Your task to perform on an android device: turn vacation reply on in the gmail app Image 0: 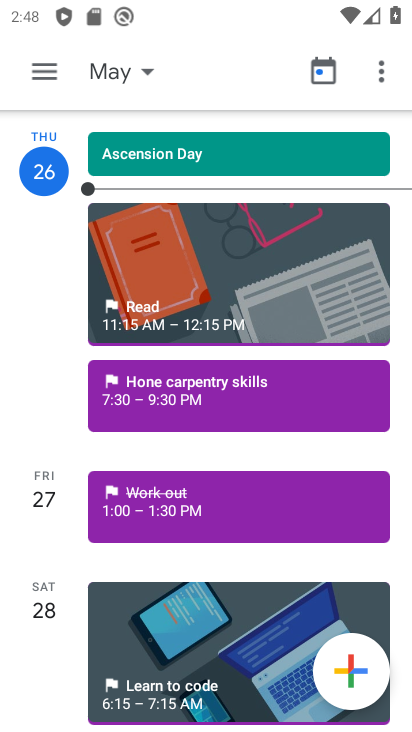
Step 0: press home button
Your task to perform on an android device: turn vacation reply on in the gmail app Image 1: 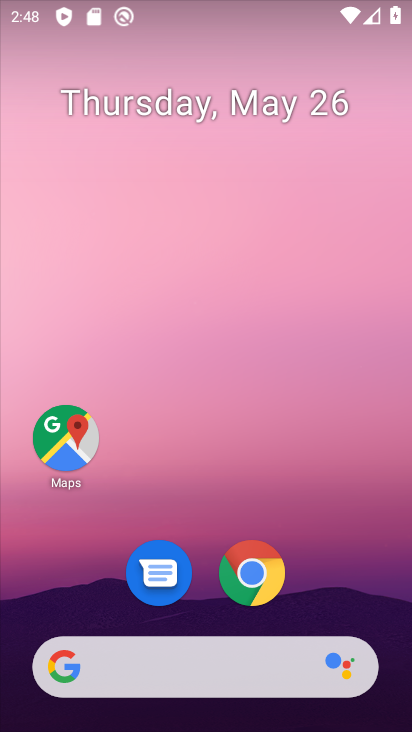
Step 1: drag from (228, 684) to (226, 162)
Your task to perform on an android device: turn vacation reply on in the gmail app Image 2: 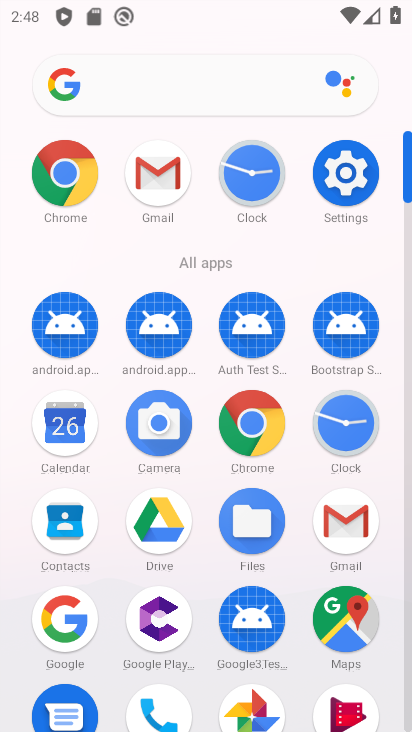
Step 2: click (155, 194)
Your task to perform on an android device: turn vacation reply on in the gmail app Image 3: 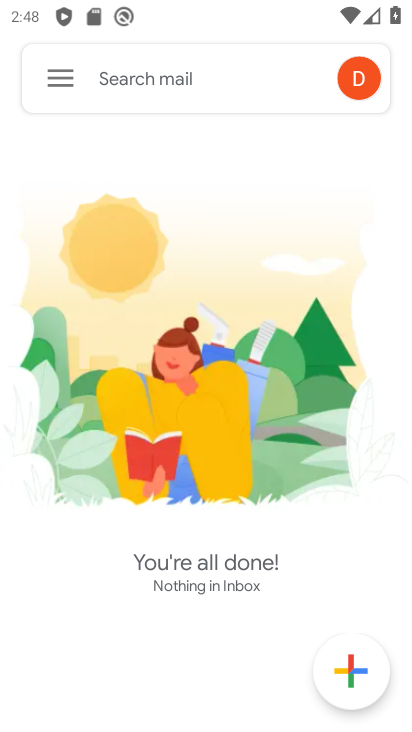
Step 3: click (56, 88)
Your task to perform on an android device: turn vacation reply on in the gmail app Image 4: 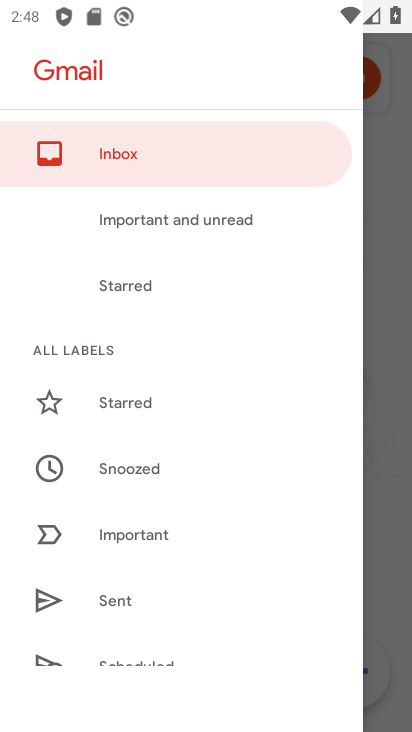
Step 4: drag from (192, 261) to (226, 50)
Your task to perform on an android device: turn vacation reply on in the gmail app Image 5: 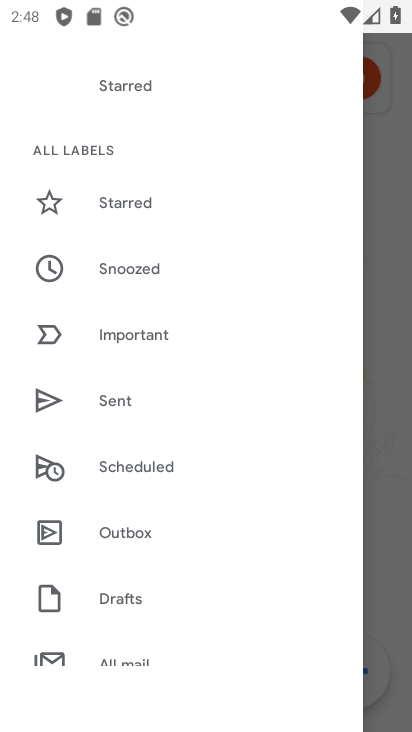
Step 5: drag from (175, 584) to (252, 123)
Your task to perform on an android device: turn vacation reply on in the gmail app Image 6: 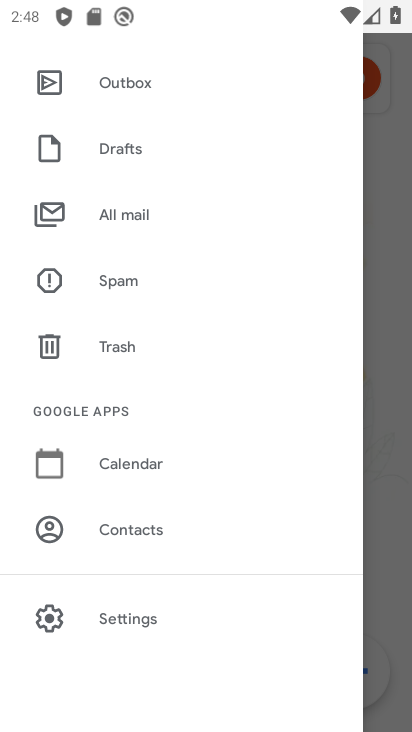
Step 6: click (141, 620)
Your task to perform on an android device: turn vacation reply on in the gmail app Image 7: 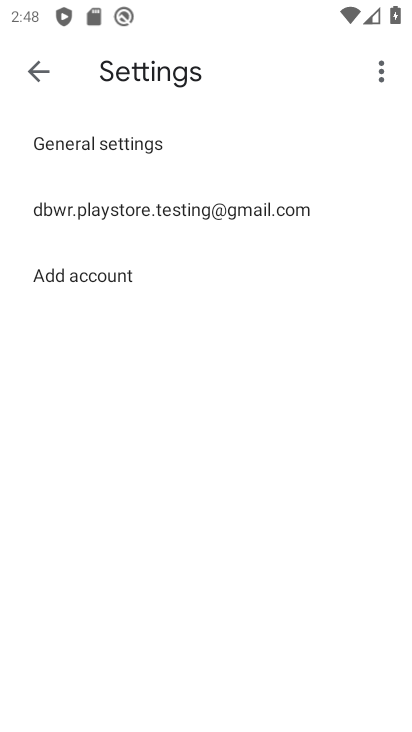
Step 7: click (162, 201)
Your task to perform on an android device: turn vacation reply on in the gmail app Image 8: 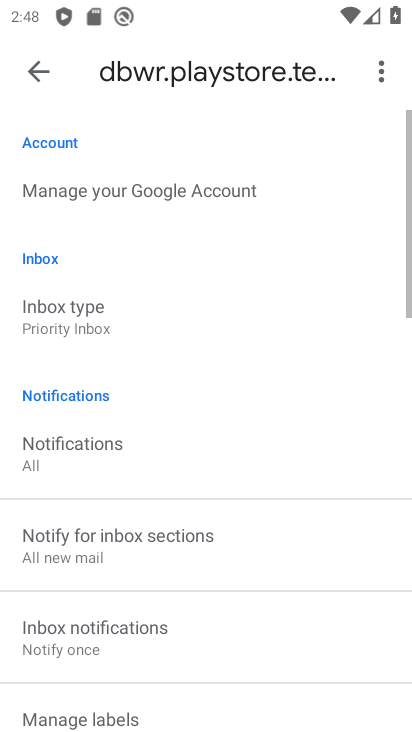
Step 8: drag from (187, 518) to (288, 74)
Your task to perform on an android device: turn vacation reply on in the gmail app Image 9: 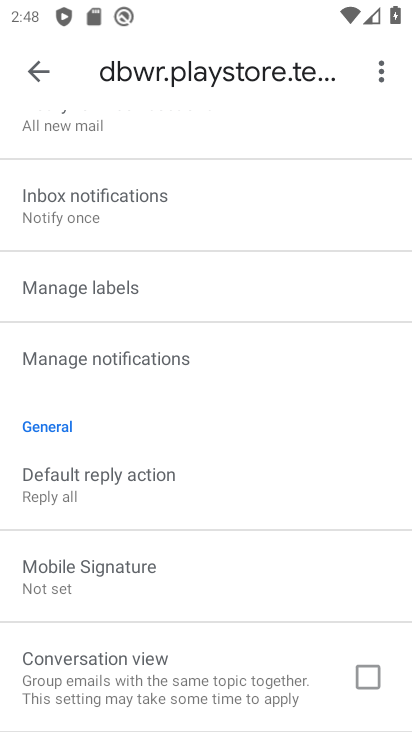
Step 9: drag from (191, 588) to (264, 42)
Your task to perform on an android device: turn vacation reply on in the gmail app Image 10: 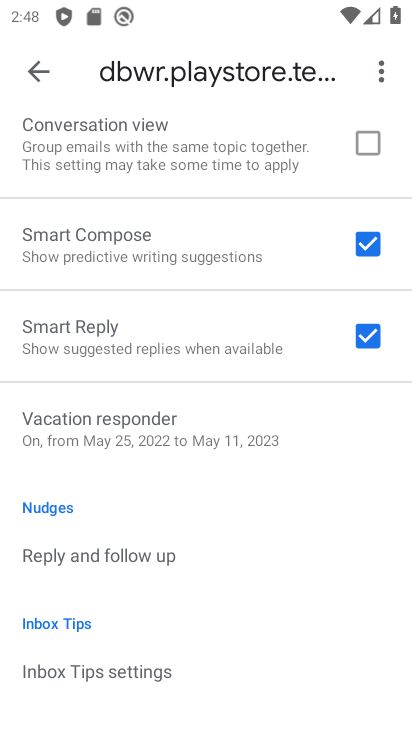
Step 10: click (206, 452)
Your task to perform on an android device: turn vacation reply on in the gmail app Image 11: 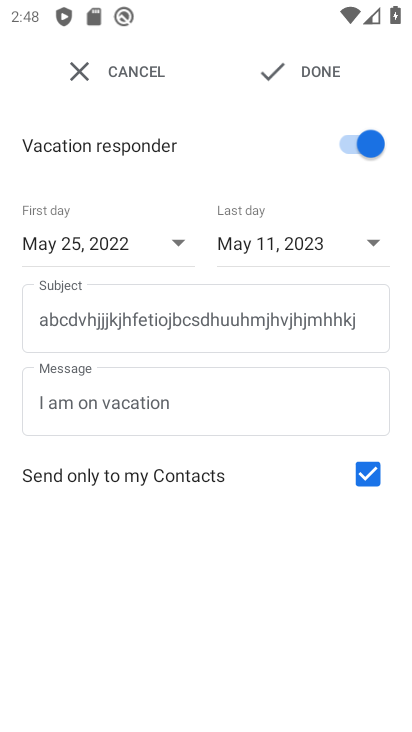
Step 11: click (285, 57)
Your task to perform on an android device: turn vacation reply on in the gmail app Image 12: 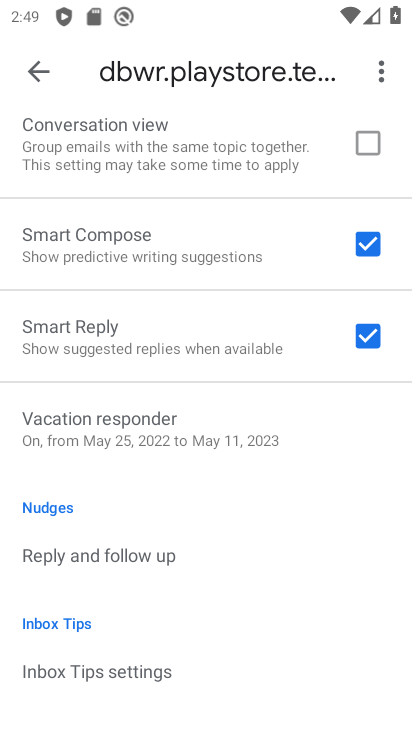
Step 12: task complete